Your task to perform on an android device: Open accessibility settings Image 0: 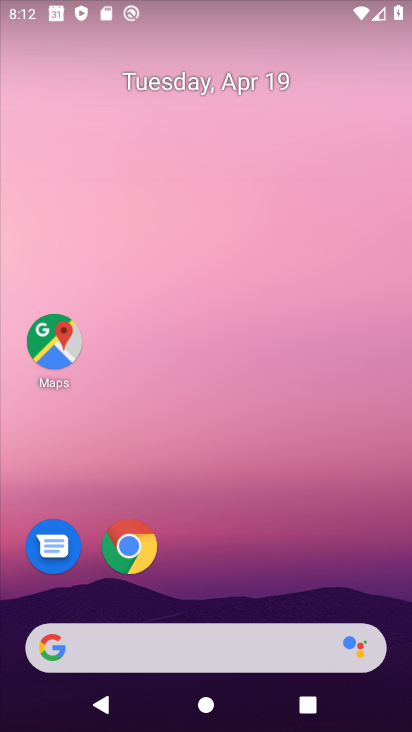
Step 0: drag from (148, 454) to (354, 46)
Your task to perform on an android device: Open accessibility settings Image 1: 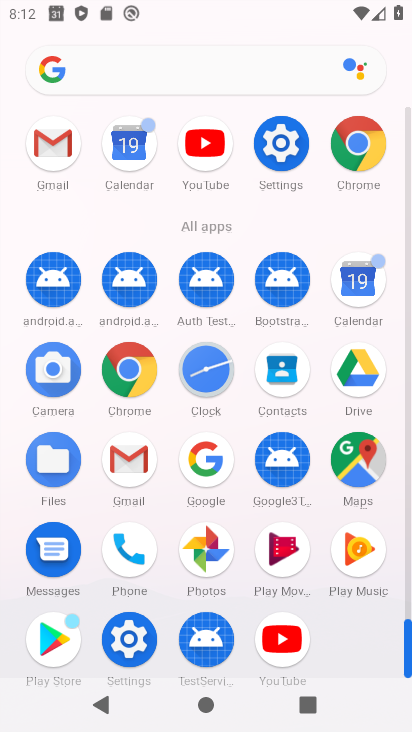
Step 1: click (265, 156)
Your task to perform on an android device: Open accessibility settings Image 2: 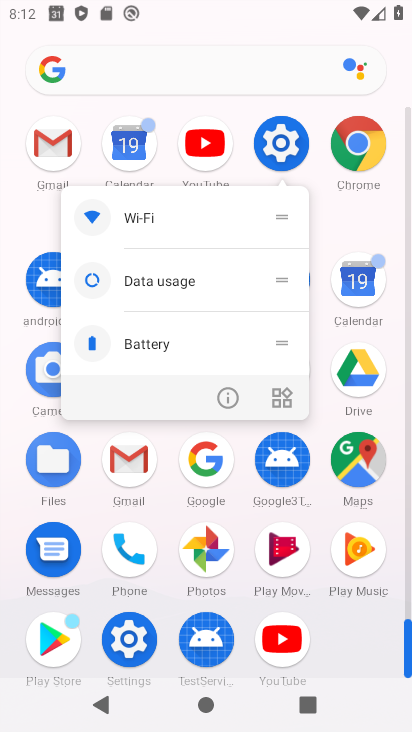
Step 2: click (279, 150)
Your task to perform on an android device: Open accessibility settings Image 3: 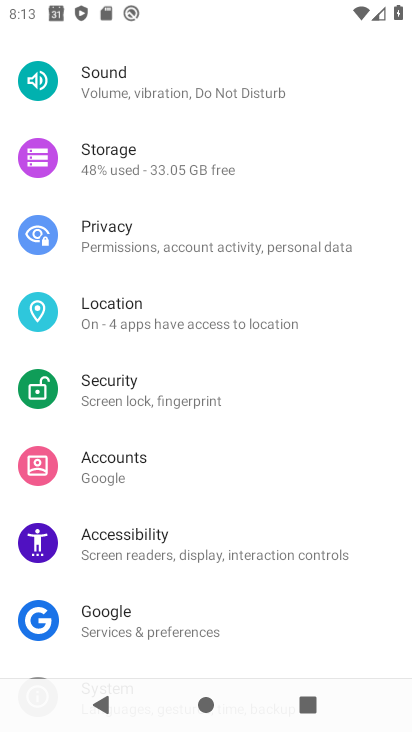
Step 3: drag from (138, 117) to (87, 470)
Your task to perform on an android device: Open accessibility settings Image 4: 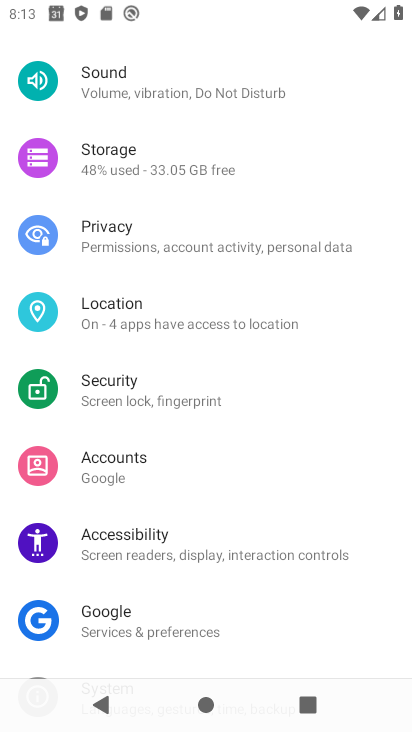
Step 4: click (126, 535)
Your task to perform on an android device: Open accessibility settings Image 5: 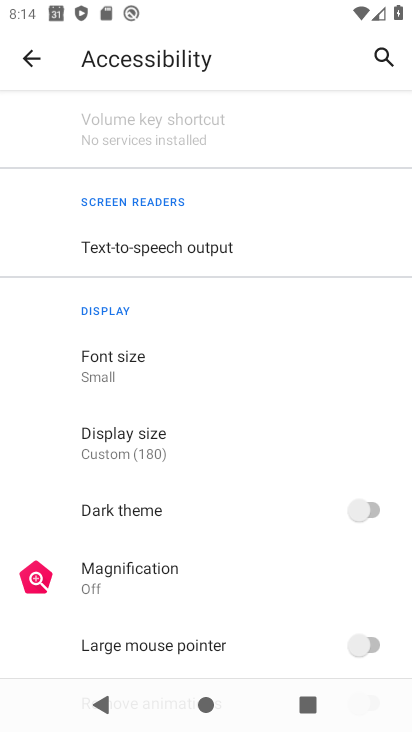
Step 5: task complete